Your task to perform on an android device: Go to Google Image 0: 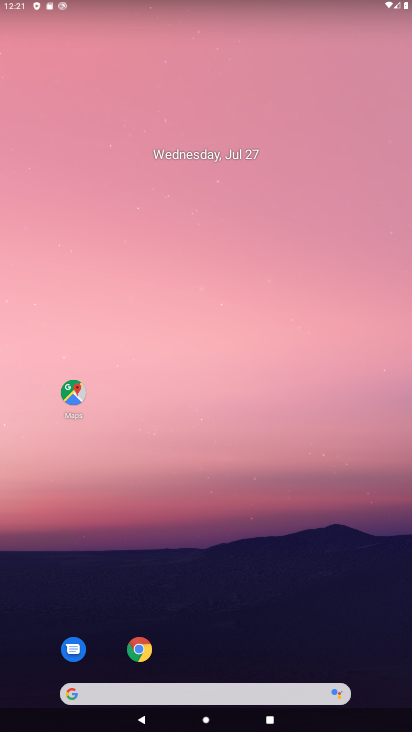
Step 0: drag from (233, 659) to (246, 255)
Your task to perform on an android device: Go to Google Image 1: 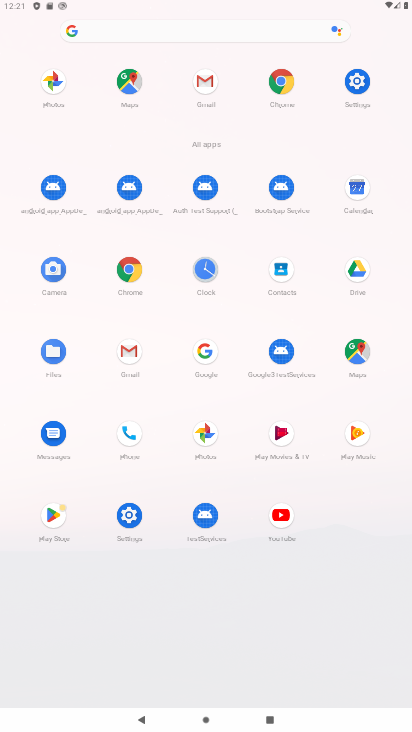
Step 1: click (205, 347)
Your task to perform on an android device: Go to Google Image 2: 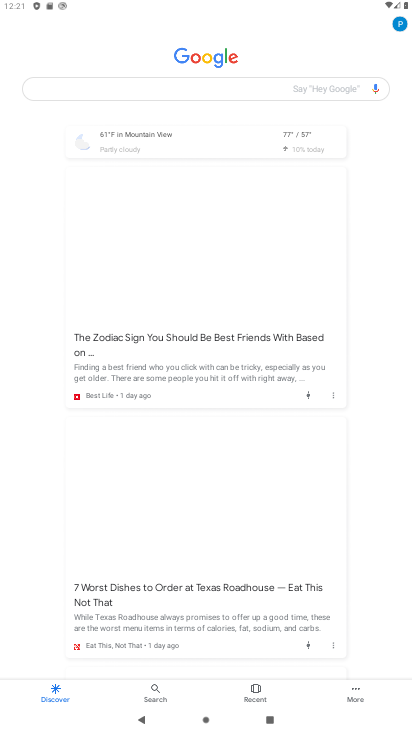
Step 2: task complete